Your task to perform on an android device: change your default location settings in chrome Image 0: 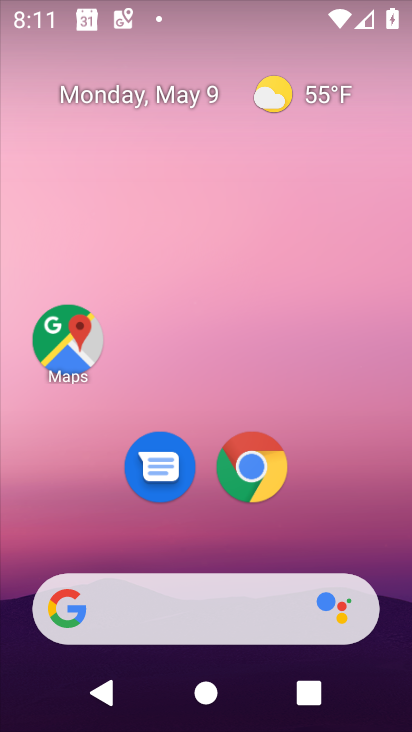
Step 0: click (259, 464)
Your task to perform on an android device: change your default location settings in chrome Image 1: 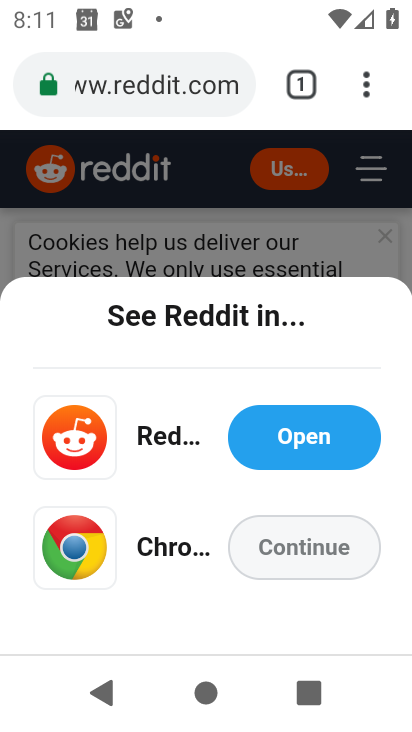
Step 1: click (367, 88)
Your task to perform on an android device: change your default location settings in chrome Image 2: 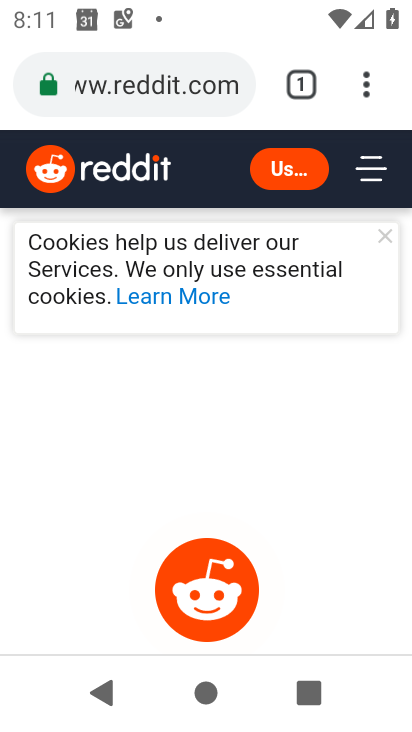
Step 2: click (368, 88)
Your task to perform on an android device: change your default location settings in chrome Image 3: 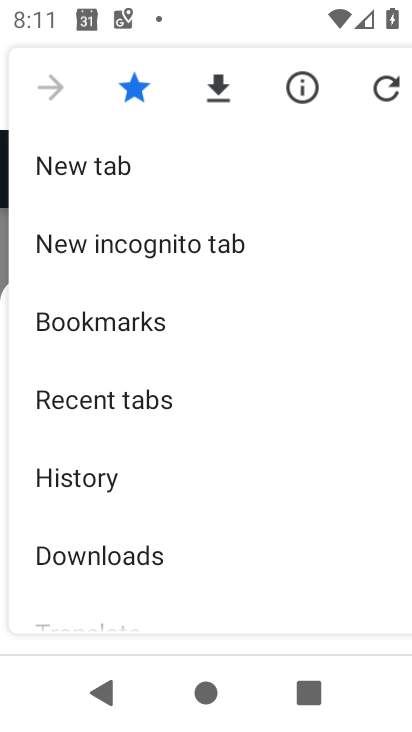
Step 3: drag from (226, 547) to (206, 155)
Your task to perform on an android device: change your default location settings in chrome Image 4: 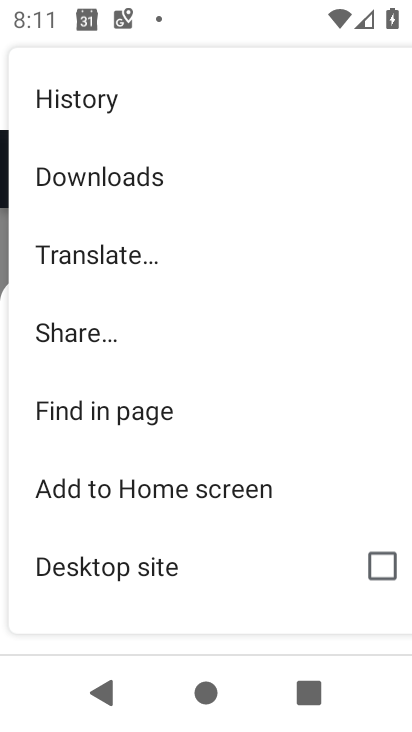
Step 4: drag from (194, 508) to (204, 191)
Your task to perform on an android device: change your default location settings in chrome Image 5: 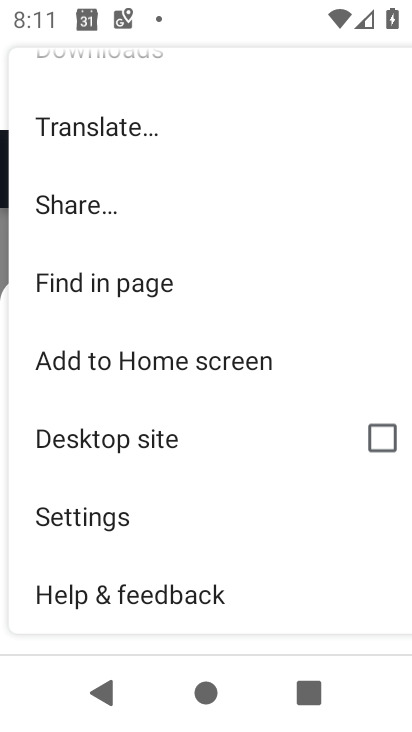
Step 5: click (92, 521)
Your task to perform on an android device: change your default location settings in chrome Image 6: 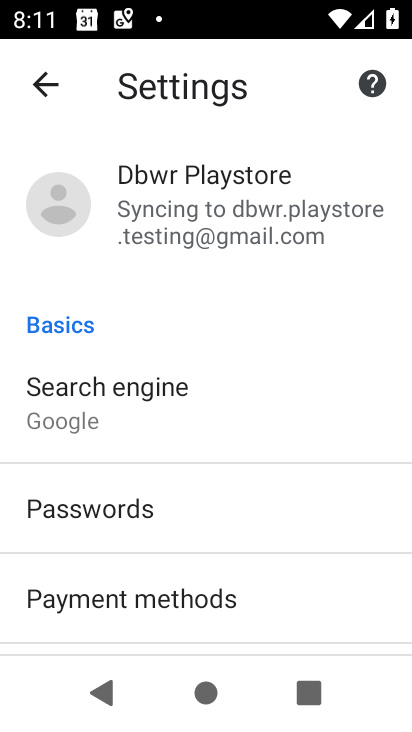
Step 6: drag from (208, 553) to (220, 179)
Your task to perform on an android device: change your default location settings in chrome Image 7: 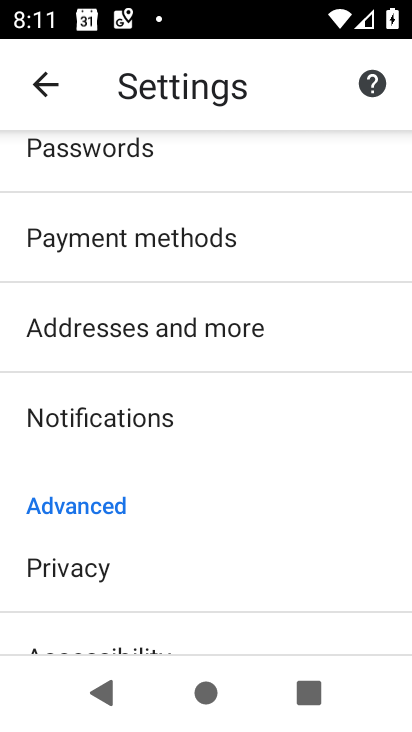
Step 7: drag from (190, 533) to (186, 155)
Your task to perform on an android device: change your default location settings in chrome Image 8: 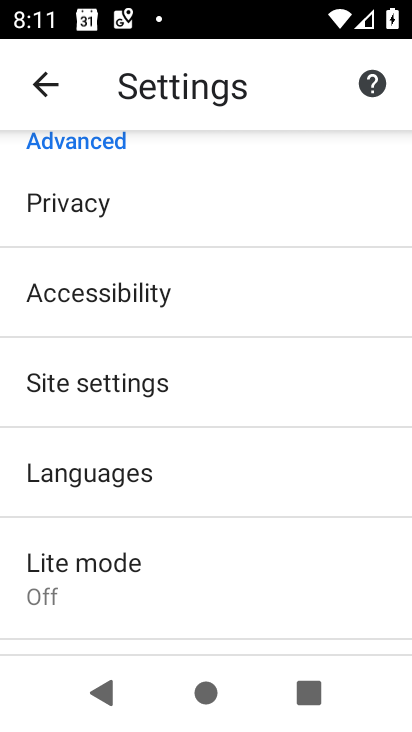
Step 8: click (73, 381)
Your task to perform on an android device: change your default location settings in chrome Image 9: 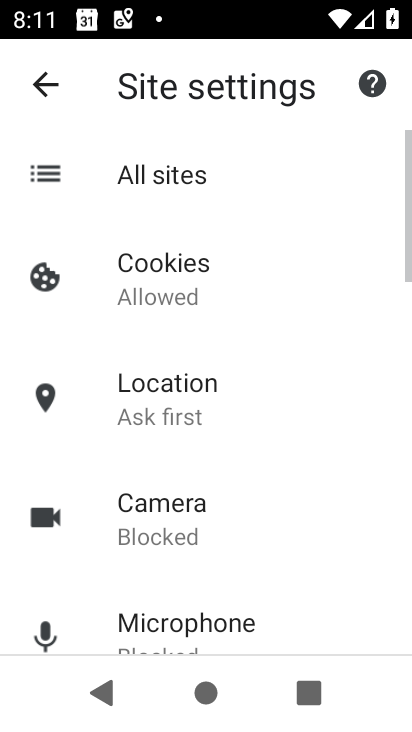
Step 9: click (162, 416)
Your task to perform on an android device: change your default location settings in chrome Image 10: 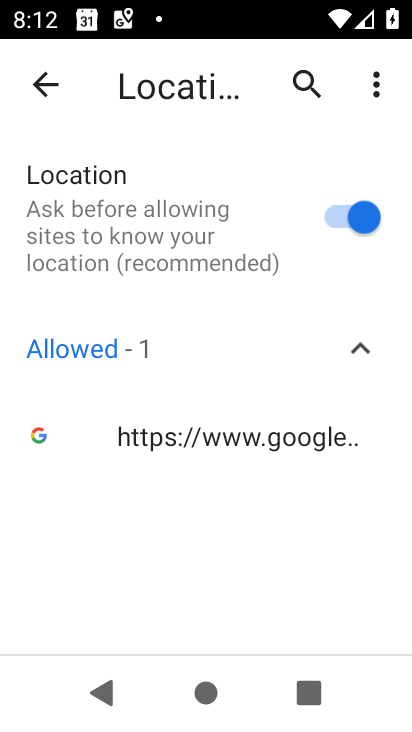
Step 10: click (354, 215)
Your task to perform on an android device: change your default location settings in chrome Image 11: 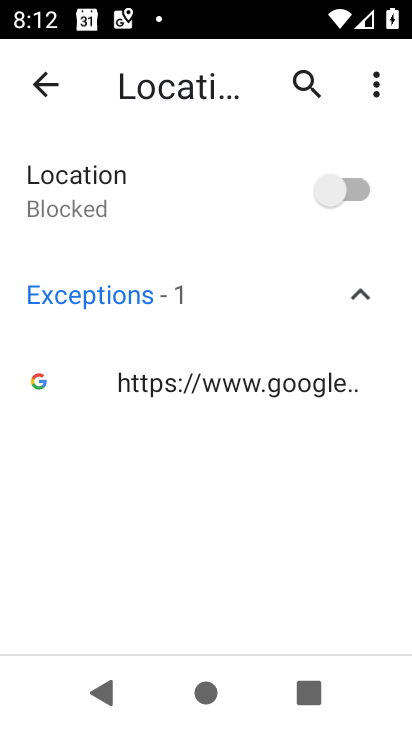
Step 11: task complete